Your task to perform on an android device: change the clock display to show seconds Image 0: 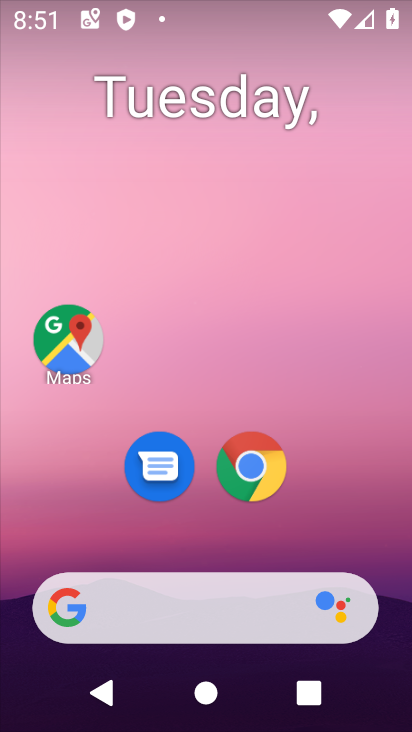
Step 0: drag from (380, 521) to (331, 80)
Your task to perform on an android device: change the clock display to show seconds Image 1: 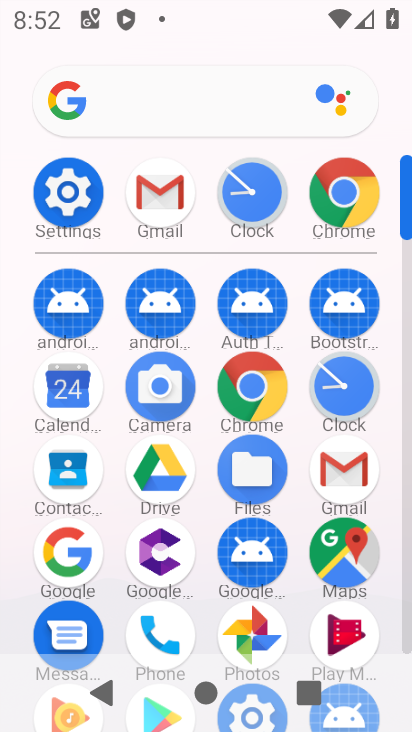
Step 1: click (229, 193)
Your task to perform on an android device: change the clock display to show seconds Image 2: 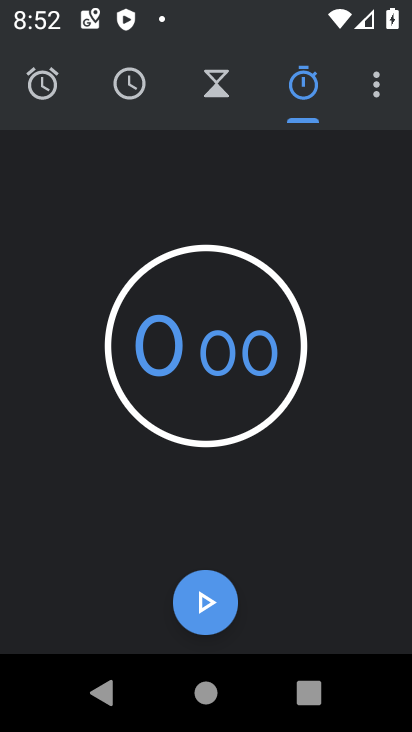
Step 2: click (381, 107)
Your task to perform on an android device: change the clock display to show seconds Image 3: 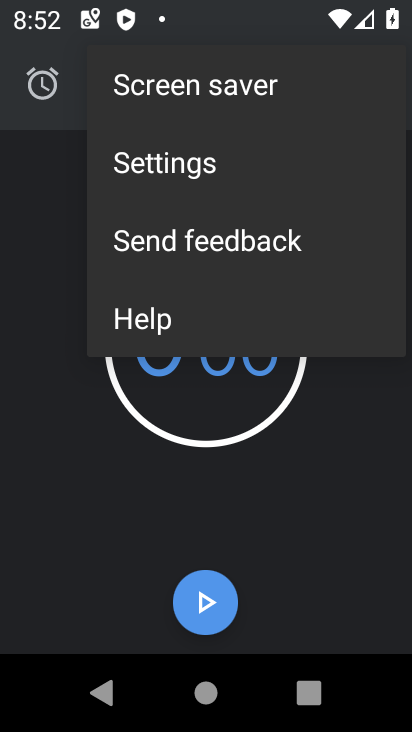
Step 3: click (270, 155)
Your task to perform on an android device: change the clock display to show seconds Image 4: 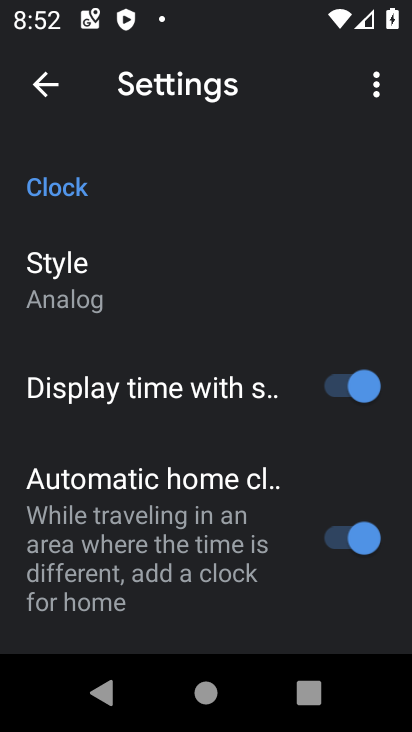
Step 4: click (360, 399)
Your task to perform on an android device: change the clock display to show seconds Image 5: 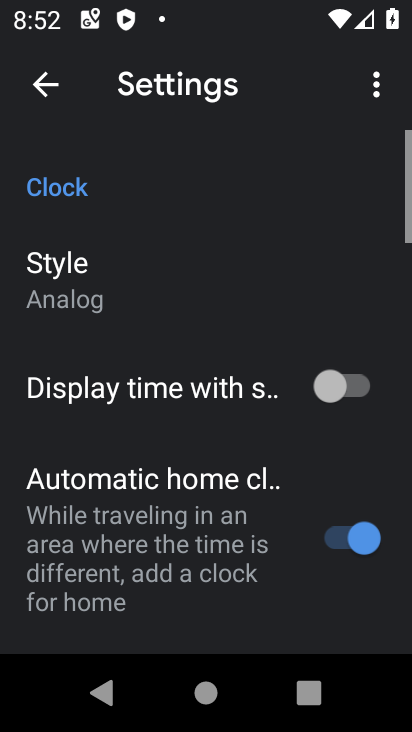
Step 5: click (360, 399)
Your task to perform on an android device: change the clock display to show seconds Image 6: 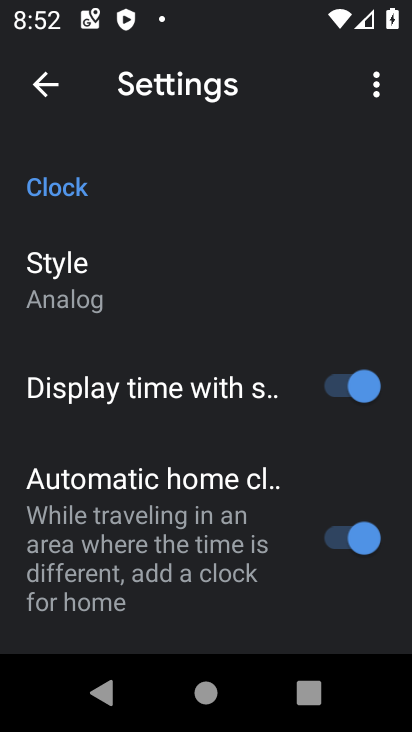
Step 6: task complete